Your task to perform on an android device: check google app version Image 0: 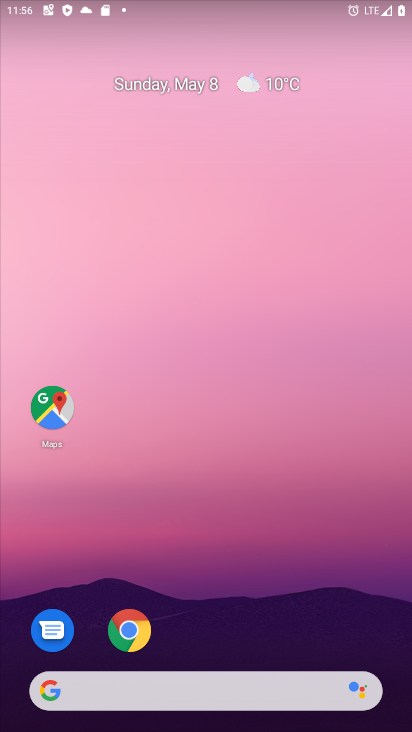
Step 0: drag from (389, 626) to (290, 17)
Your task to perform on an android device: check google app version Image 1: 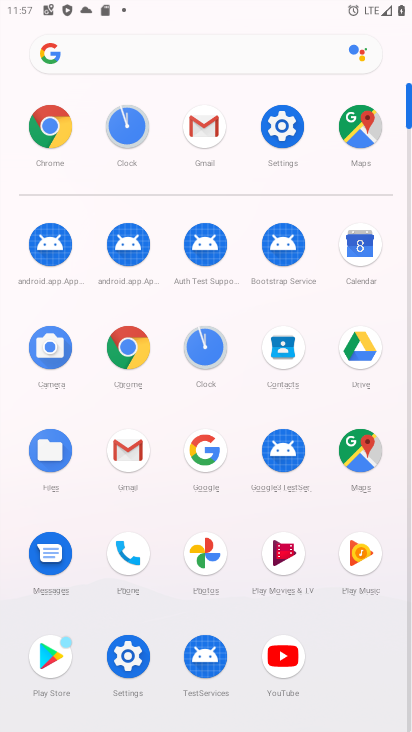
Step 1: click (209, 449)
Your task to perform on an android device: check google app version Image 2: 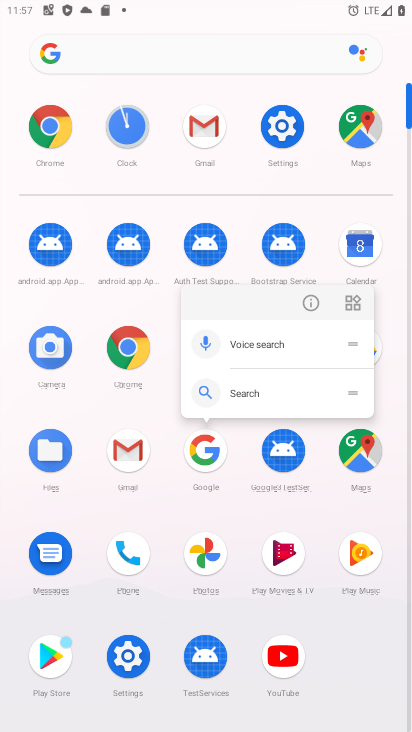
Step 2: click (312, 299)
Your task to perform on an android device: check google app version Image 3: 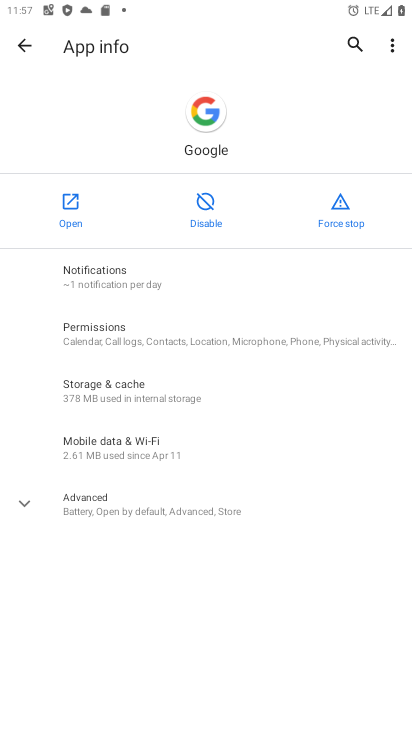
Step 3: click (30, 502)
Your task to perform on an android device: check google app version Image 4: 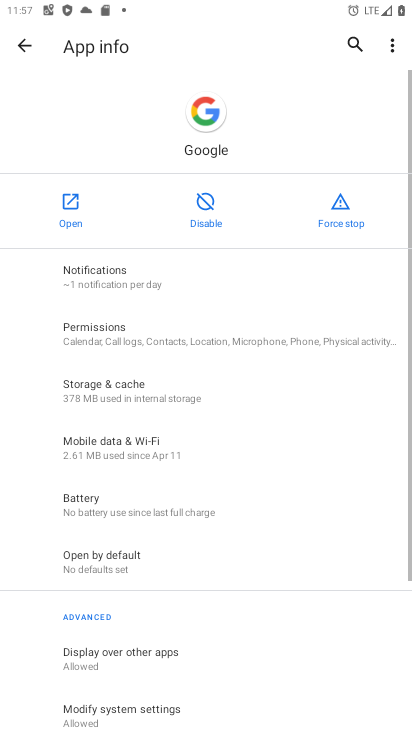
Step 4: task complete